Your task to perform on an android device: Open Google Maps Image 0: 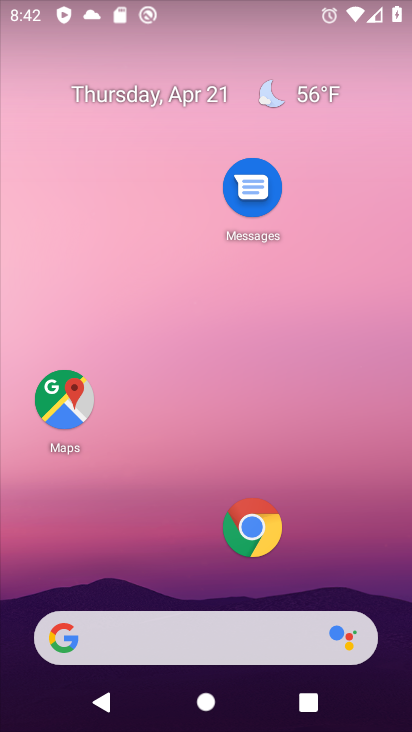
Step 0: drag from (178, 634) to (305, 46)
Your task to perform on an android device: Open Google Maps Image 1: 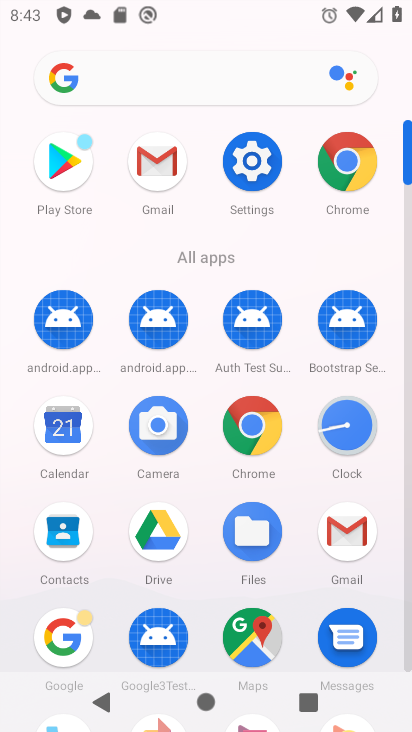
Step 1: drag from (189, 554) to (249, 169)
Your task to perform on an android device: Open Google Maps Image 2: 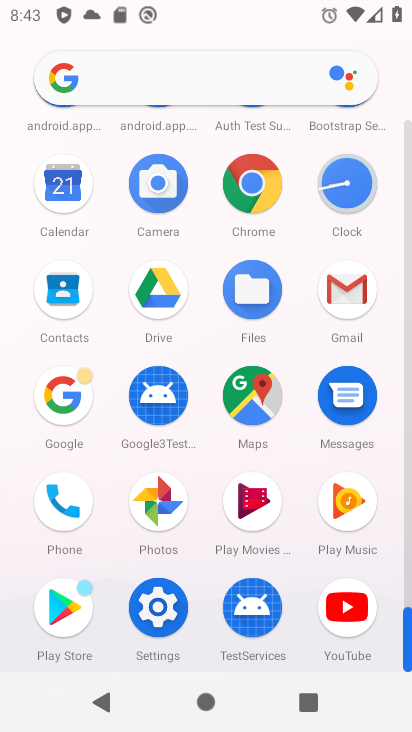
Step 2: click (254, 404)
Your task to perform on an android device: Open Google Maps Image 3: 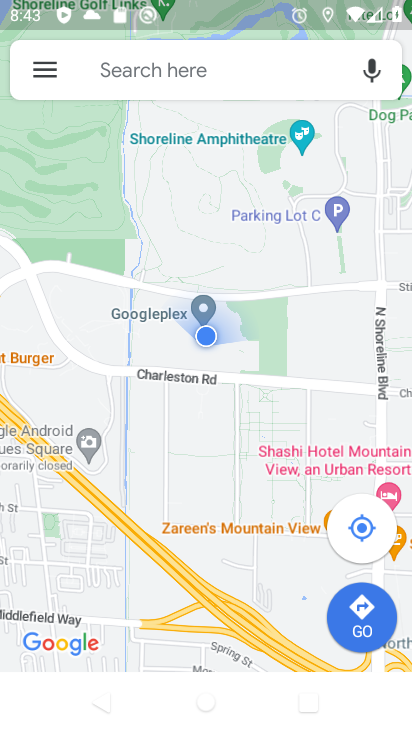
Step 3: task complete